Your task to perform on an android device: turn on airplane mode Image 0: 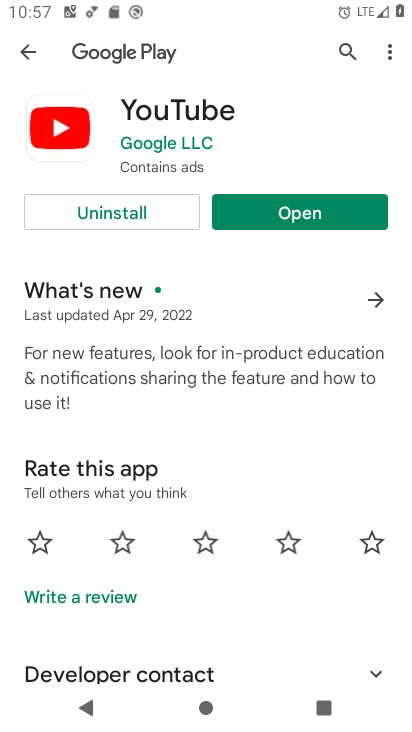
Step 0: press home button
Your task to perform on an android device: turn on airplane mode Image 1: 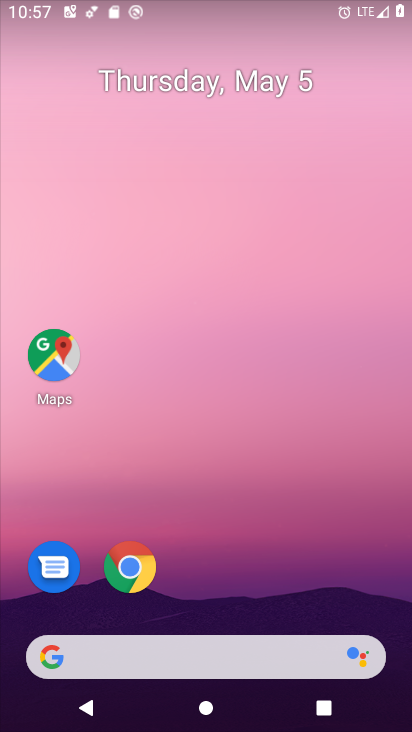
Step 1: drag from (224, 593) to (230, 130)
Your task to perform on an android device: turn on airplane mode Image 2: 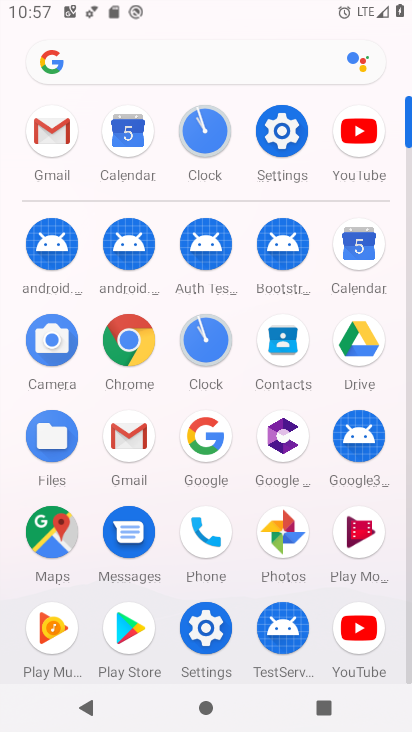
Step 2: click (276, 133)
Your task to perform on an android device: turn on airplane mode Image 3: 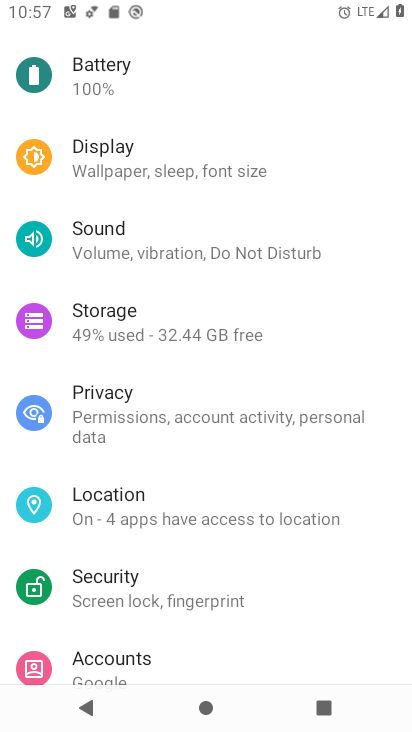
Step 3: drag from (167, 125) to (159, 531)
Your task to perform on an android device: turn on airplane mode Image 4: 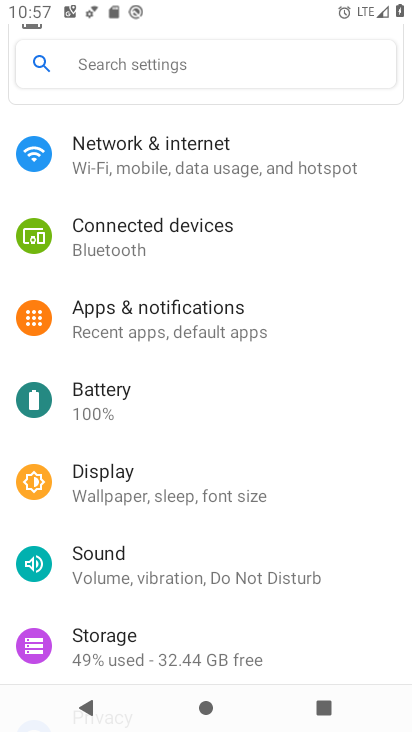
Step 4: click (172, 159)
Your task to perform on an android device: turn on airplane mode Image 5: 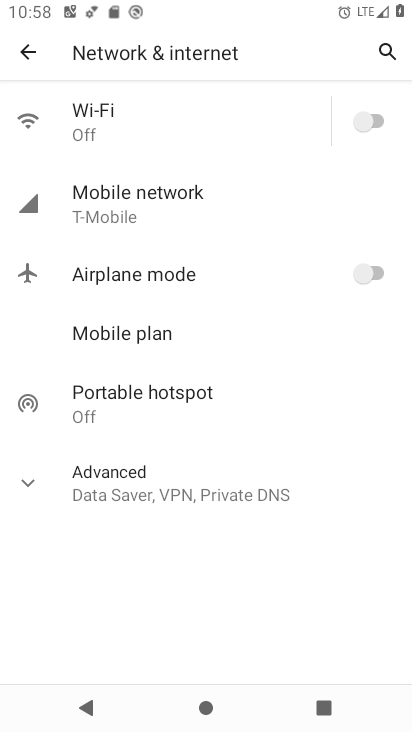
Step 5: click (378, 273)
Your task to perform on an android device: turn on airplane mode Image 6: 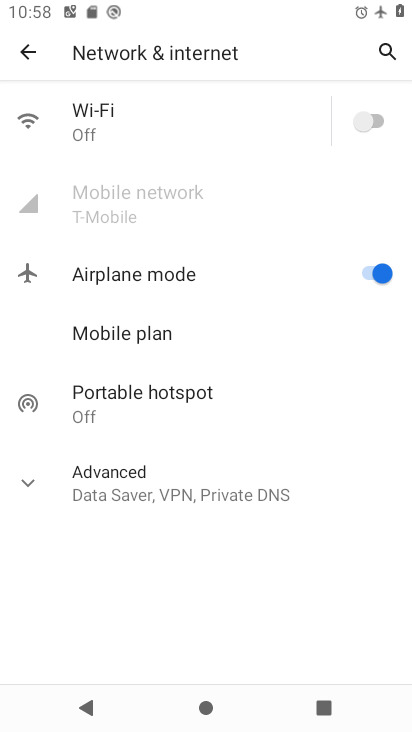
Step 6: task complete